Your task to perform on an android device: change the clock display to show seconds Image 0: 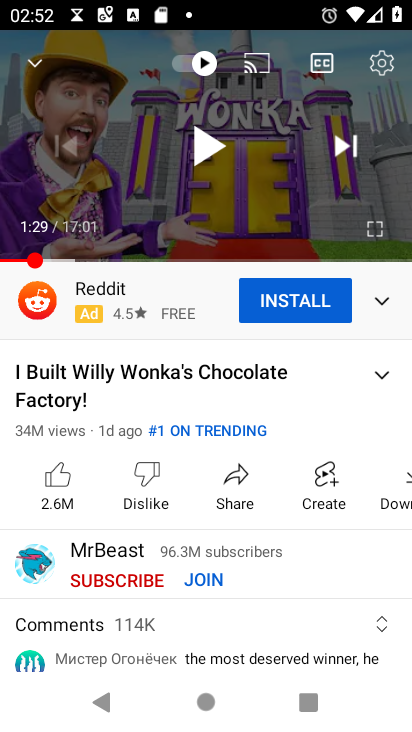
Step 0: press home button
Your task to perform on an android device: change the clock display to show seconds Image 1: 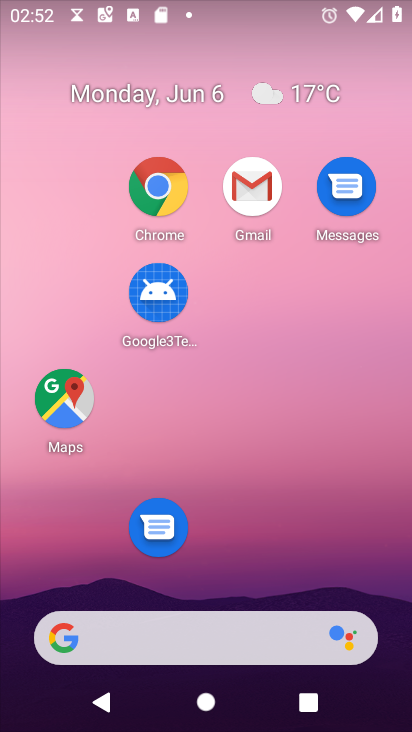
Step 1: click (51, 400)
Your task to perform on an android device: change the clock display to show seconds Image 2: 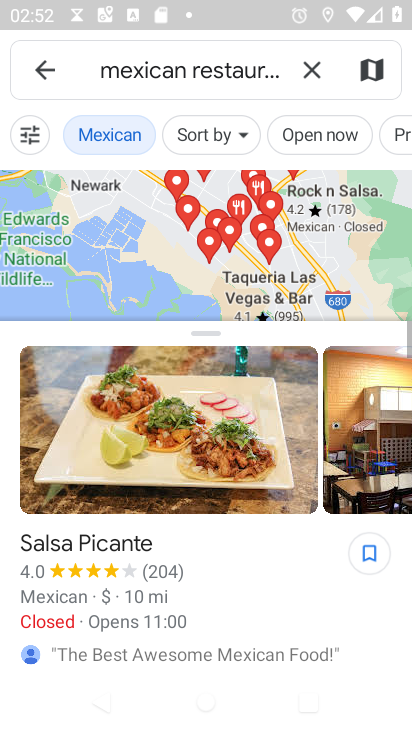
Step 2: press home button
Your task to perform on an android device: change the clock display to show seconds Image 3: 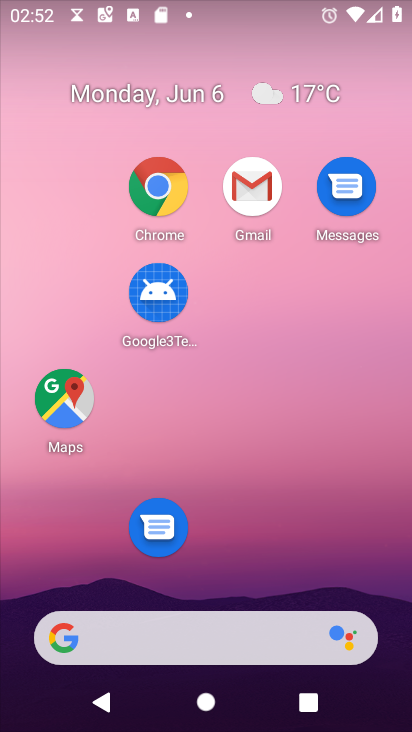
Step 3: drag from (268, 516) to (145, 74)
Your task to perform on an android device: change the clock display to show seconds Image 4: 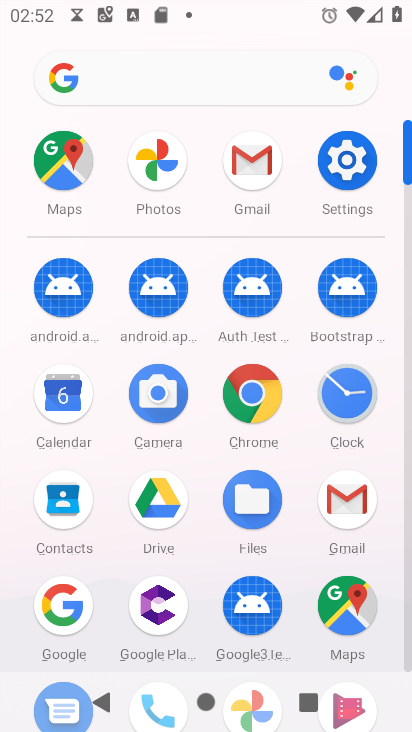
Step 4: click (354, 385)
Your task to perform on an android device: change the clock display to show seconds Image 5: 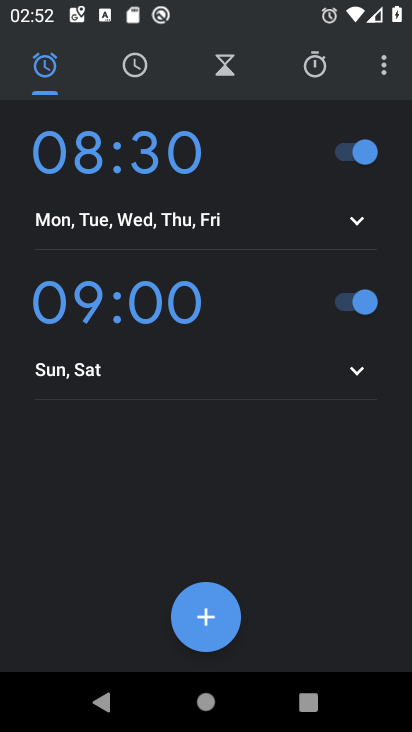
Step 5: click (384, 86)
Your task to perform on an android device: change the clock display to show seconds Image 6: 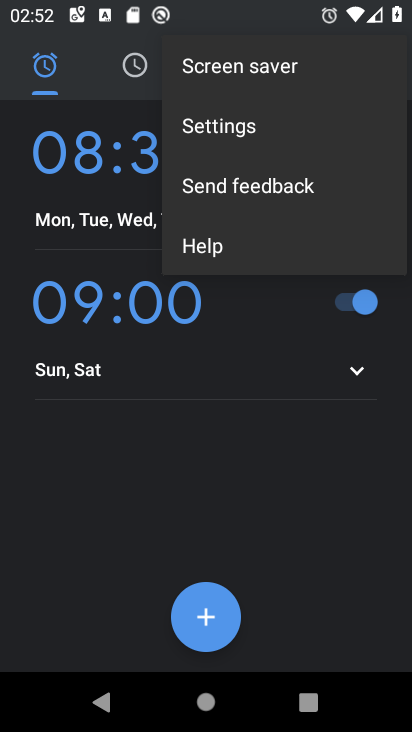
Step 6: click (254, 130)
Your task to perform on an android device: change the clock display to show seconds Image 7: 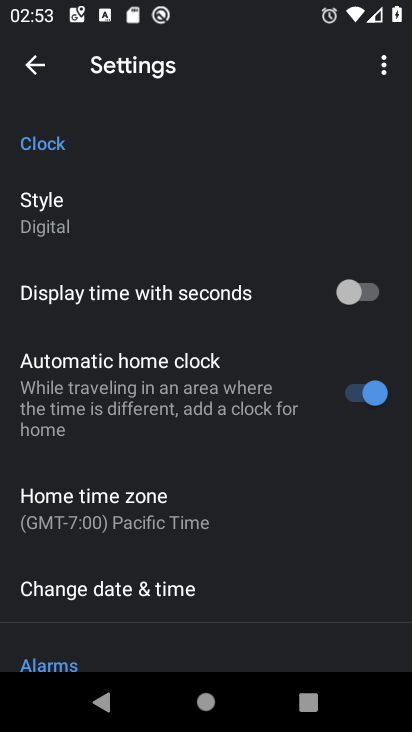
Step 7: drag from (300, 555) to (276, 299)
Your task to perform on an android device: change the clock display to show seconds Image 8: 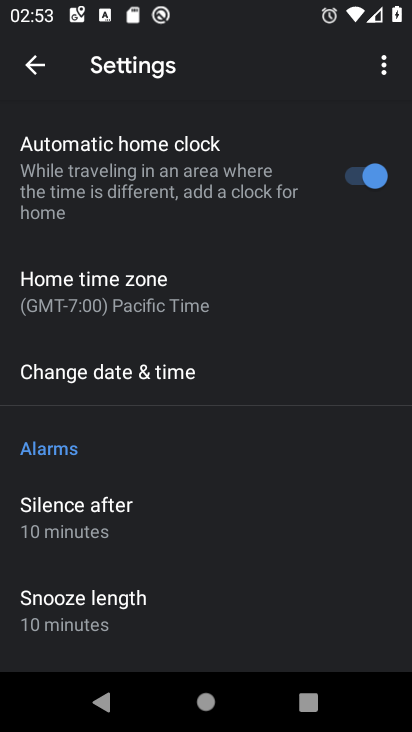
Step 8: drag from (273, 494) to (238, 104)
Your task to perform on an android device: change the clock display to show seconds Image 9: 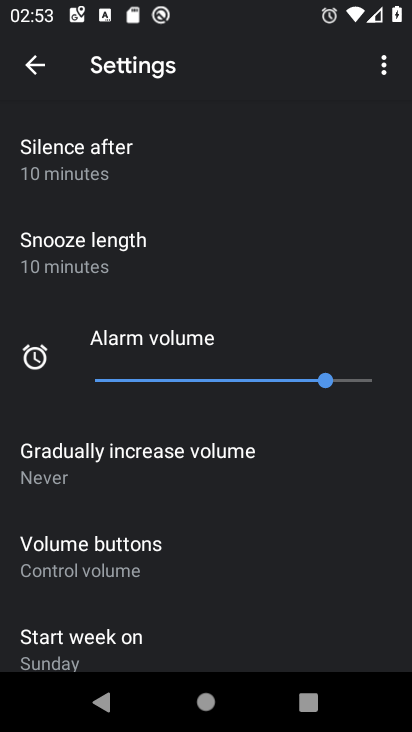
Step 9: drag from (325, 592) to (310, 99)
Your task to perform on an android device: change the clock display to show seconds Image 10: 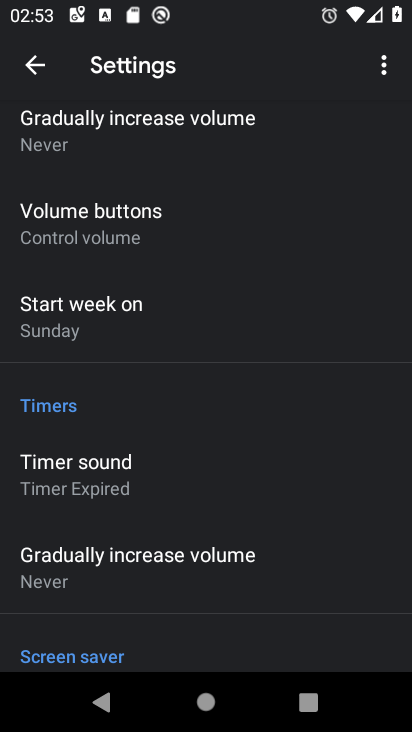
Step 10: drag from (288, 458) to (254, 105)
Your task to perform on an android device: change the clock display to show seconds Image 11: 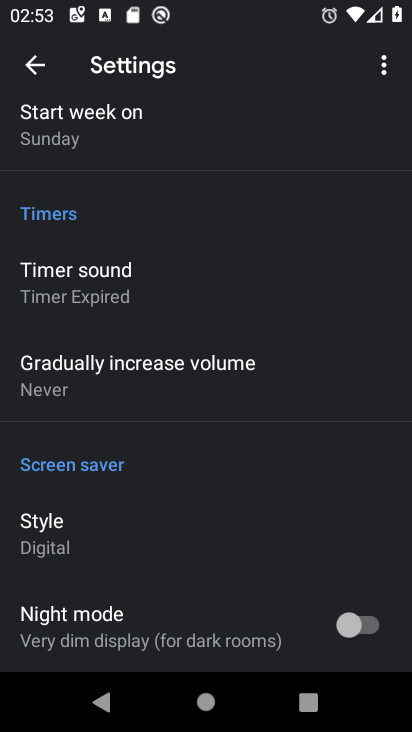
Step 11: drag from (248, 210) to (228, 530)
Your task to perform on an android device: change the clock display to show seconds Image 12: 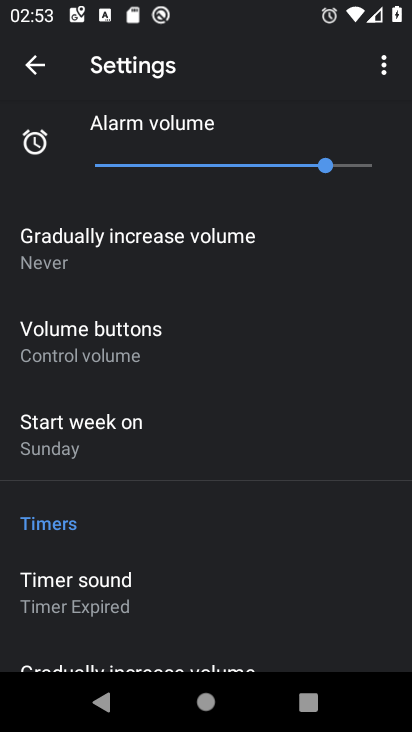
Step 12: drag from (358, 390) to (353, 703)
Your task to perform on an android device: change the clock display to show seconds Image 13: 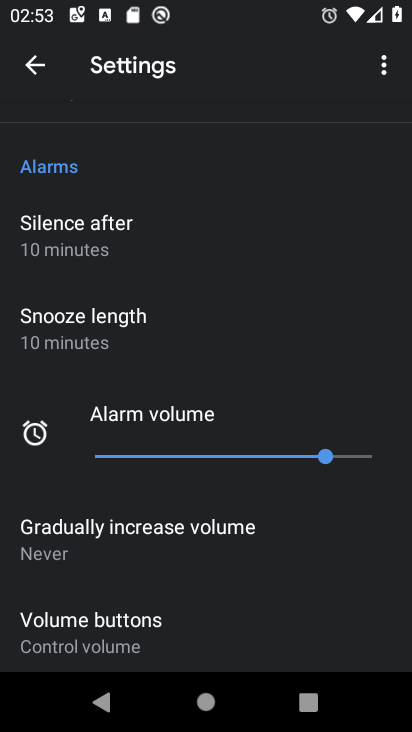
Step 13: drag from (276, 147) to (280, 488)
Your task to perform on an android device: change the clock display to show seconds Image 14: 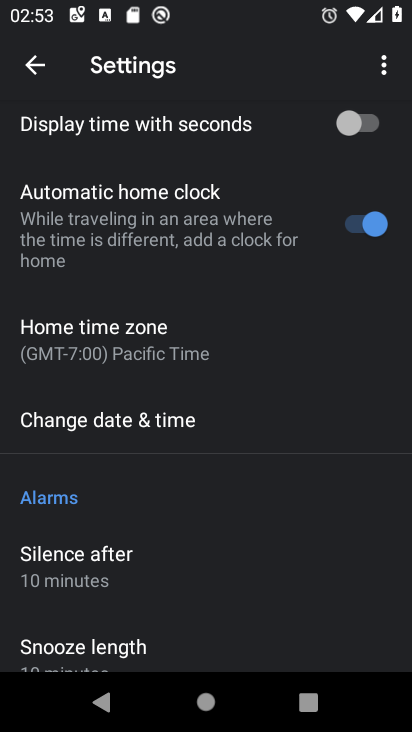
Step 14: click (256, 413)
Your task to perform on an android device: change the clock display to show seconds Image 15: 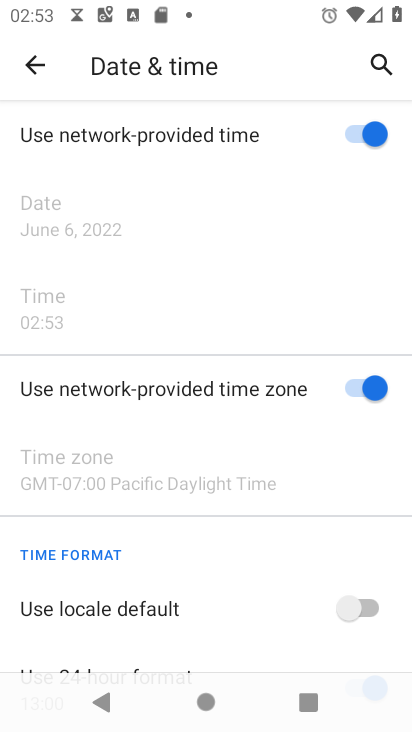
Step 15: drag from (124, 470) to (123, 203)
Your task to perform on an android device: change the clock display to show seconds Image 16: 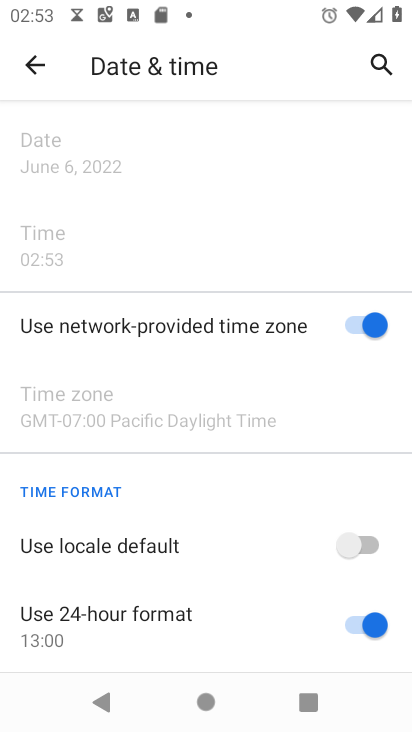
Step 16: click (21, 63)
Your task to perform on an android device: change the clock display to show seconds Image 17: 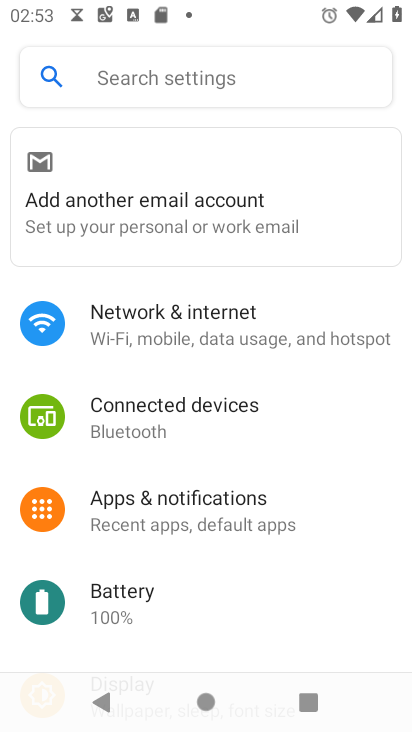
Step 17: task complete